Your task to perform on an android device: Open the calendar and show me this week's events? Image 0: 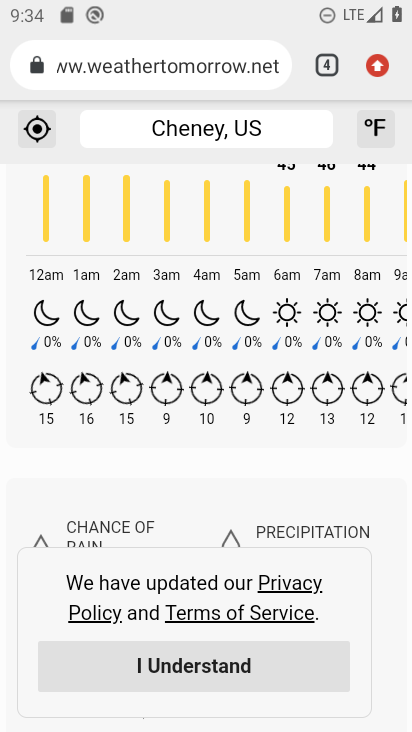
Step 0: press home button
Your task to perform on an android device: Open the calendar and show me this week's events? Image 1: 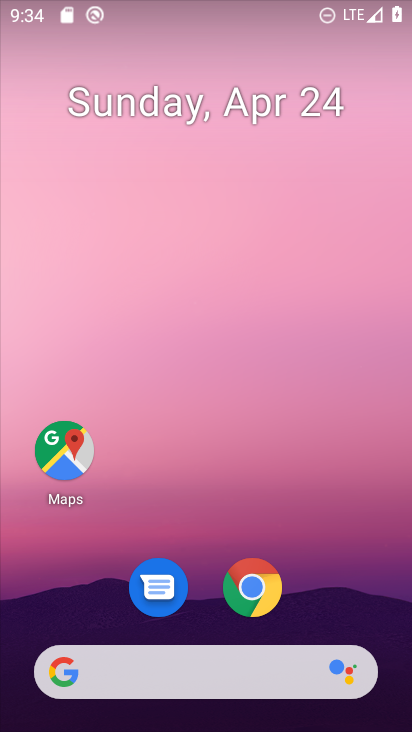
Step 1: drag from (386, 564) to (359, 116)
Your task to perform on an android device: Open the calendar and show me this week's events? Image 2: 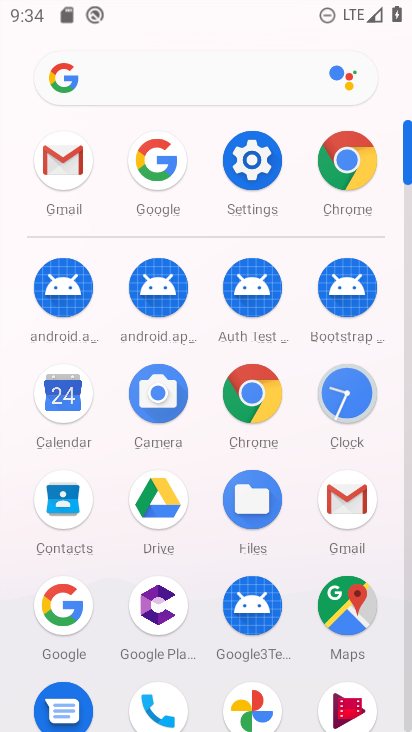
Step 2: click (48, 404)
Your task to perform on an android device: Open the calendar and show me this week's events? Image 3: 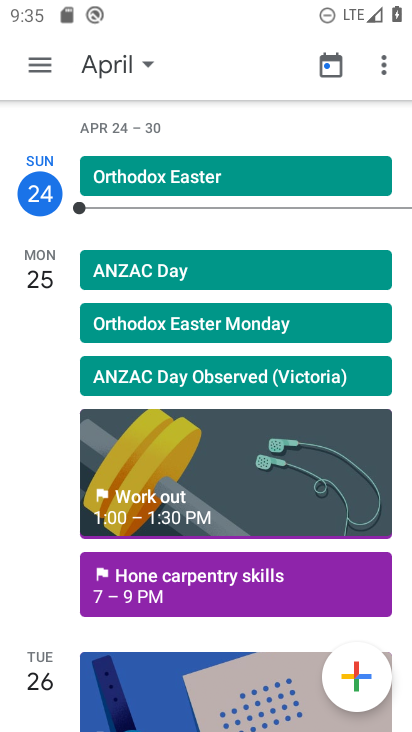
Step 3: task complete